Your task to perform on an android device: Open battery settings Image 0: 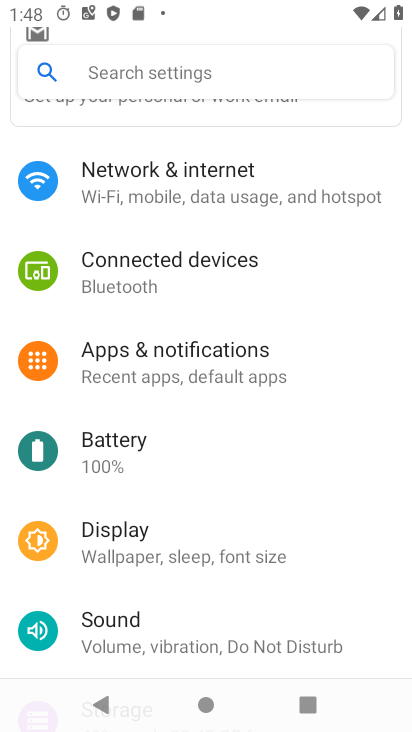
Step 0: click (147, 437)
Your task to perform on an android device: Open battery settings Image 1: 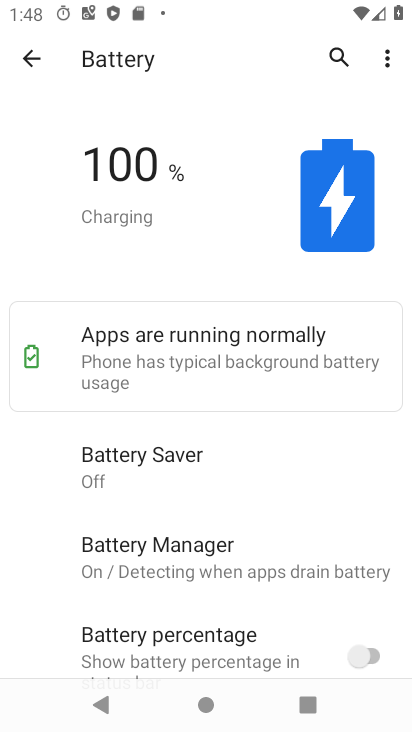
Step 1: task complete